Your task to perform on an android device: See recent photos Image 0: 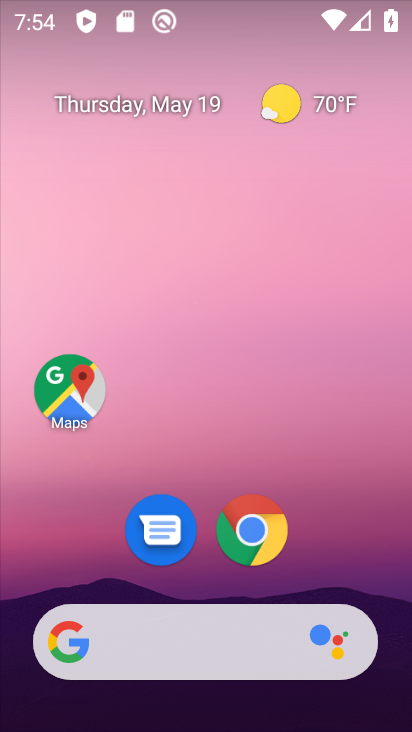
Step 0: click (280, 528)
Your task to perform on an android device: See recent photos Image 1: 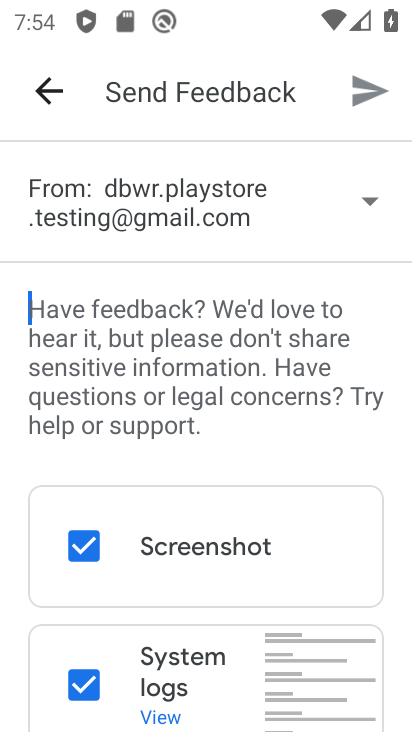
Step 1: press home button
Your task to perform on an android device: See recent photos Image 2: 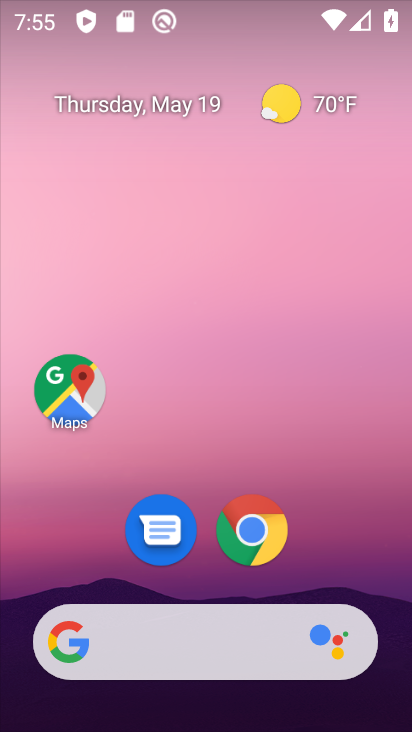
Step 2: drag from (358, 560) to (290, 99)
Your task to perform on an android device: See recent photos Image 3: 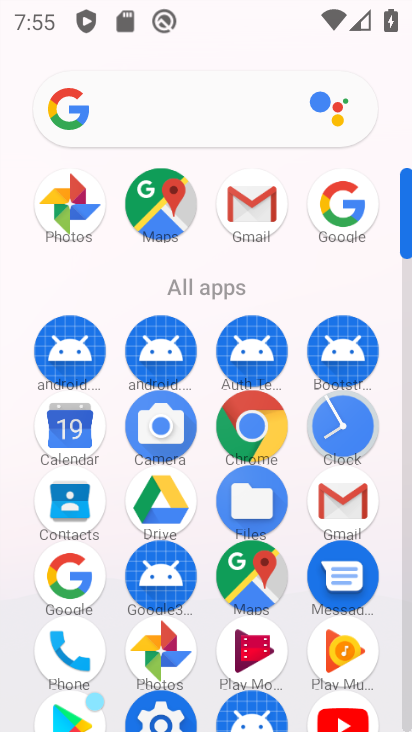
Step 3: click (180, 644)
Your task to perform on an android device: See recent photos Image 4: 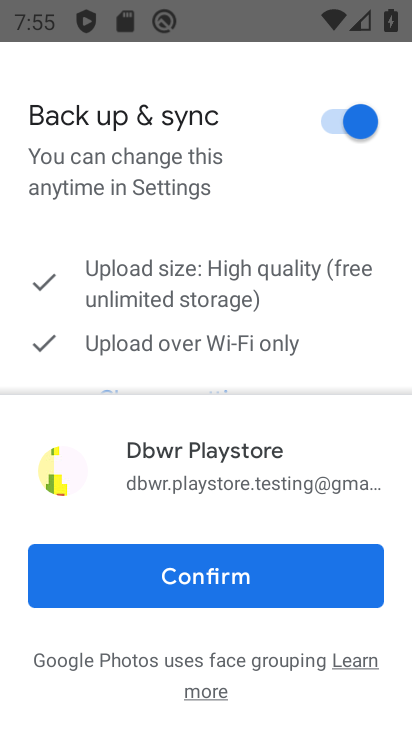
Step 4: click (255, 605)
Your task to perform on an android device: See recent photos Image 5: 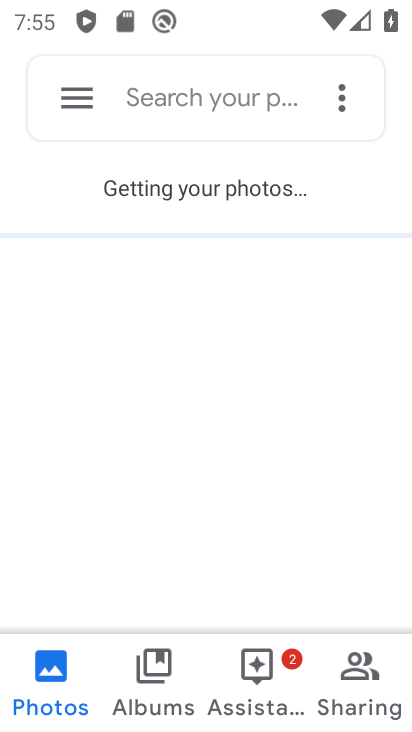
Step 5: click (65, 678)
Your task to perform on an android device: See recent photos Image 6: 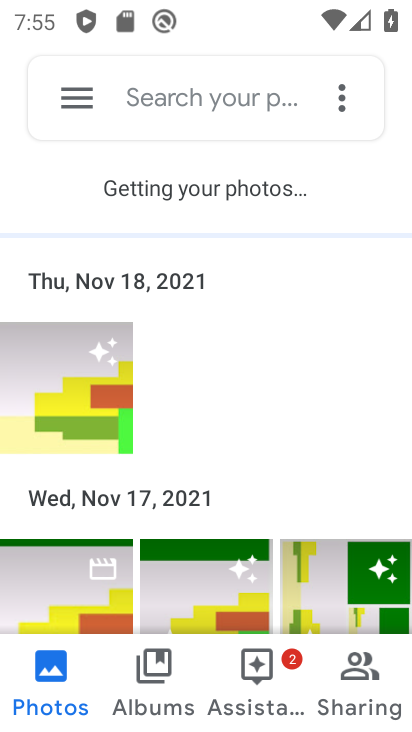
Step 6: click (79, 416)
Your task to perform on an android device: See recent photos Image 7: 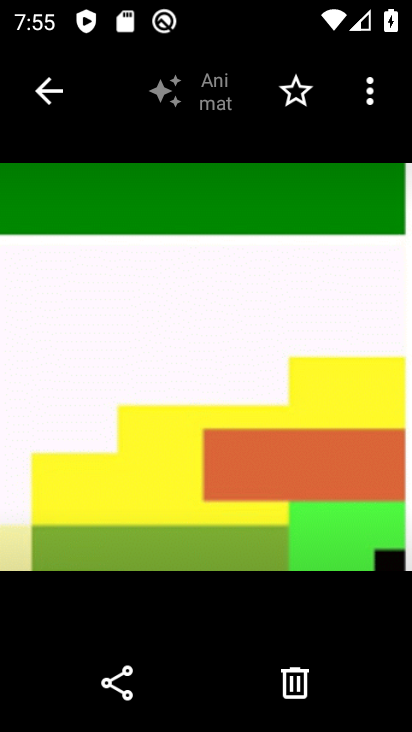
Step 7: task complete